Your task to perform on an android device: turn notification dots off Image 0: 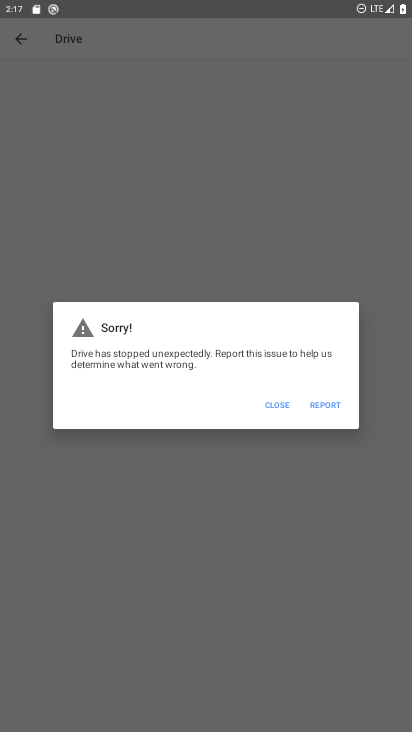
Step 0: press home button
Your task to perform on an android device: turn notification dots off Image 1: 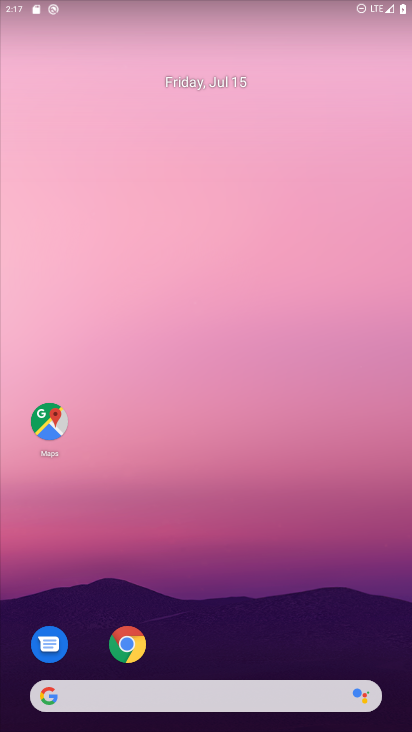
Step 1: drag from (52, 617) to (234, 148)
Your task to perform on an android device: turn notification dots off Image 2: 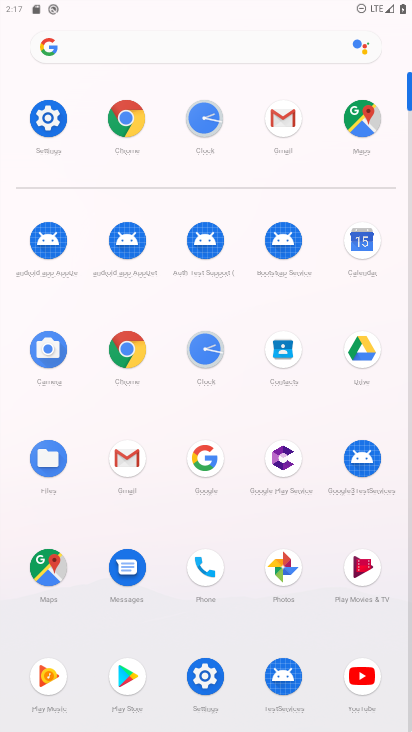
Step 2: click (45, 114)
Your task to perform on an android device: turn notification dots off Image 3: 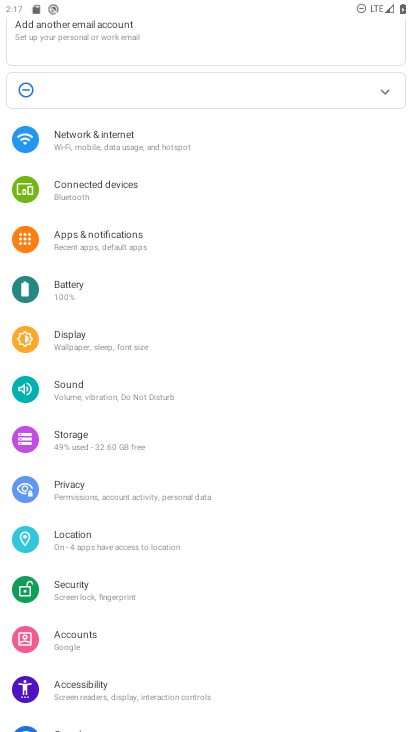
Step 3: click (91, 246)
Your task to perform on an android device: turn notification dots off Image 4: 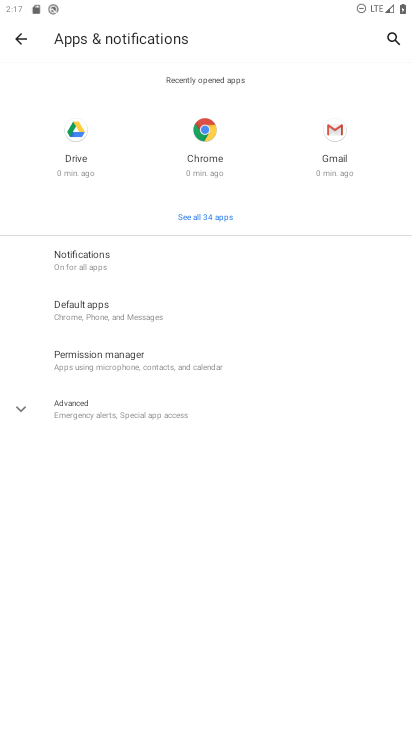
Step 4: click (88, 252)
Your task to perform on an android device: turn notification dots off Image 5: 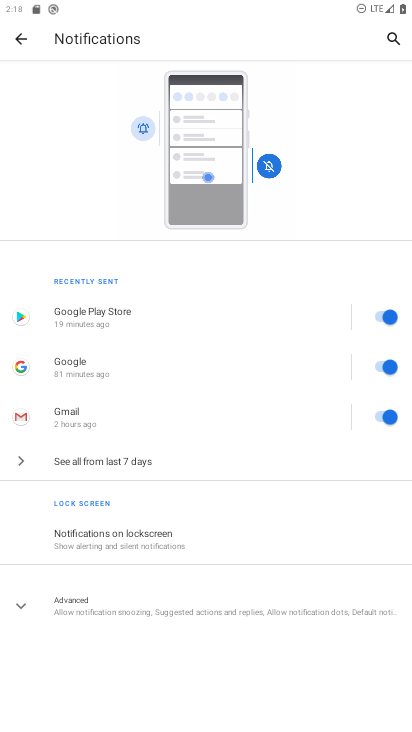
Step 5: click (117, 606)
Your task to perform on an android device: turn notification dots off Image 6: 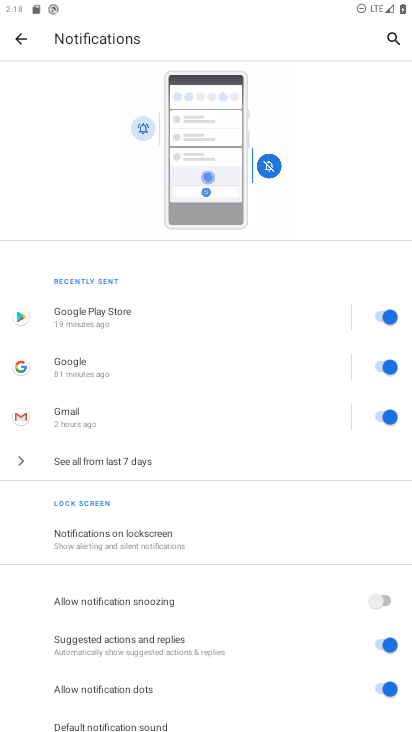
Step 6: click (390, 646)
Your task to perform on an android device: turn notification dots off Image 7: 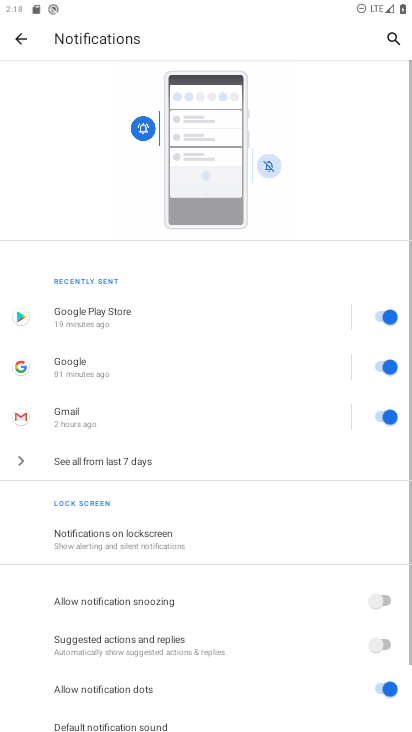
Step 7: task complete